Your task to perform on an android device: Toggle the flashlight Image 0: 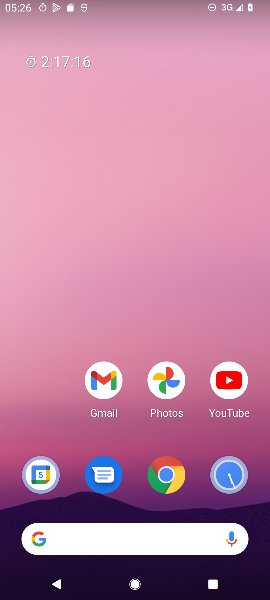
Step 0: drag from (132, 5) to (158, 369)
Your task to perform on an android device: Toggle the flashlight Image 1: 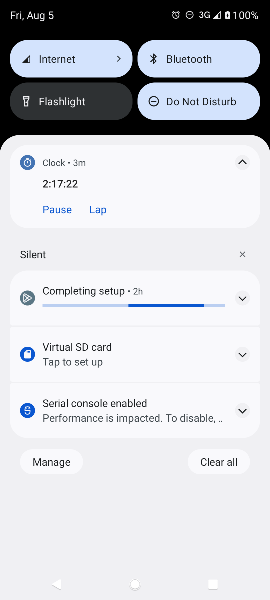
Step 1: drag from (137, 43) to (152, 297)
Your task to perform on an android device: Toggle the flashlight Image 2: 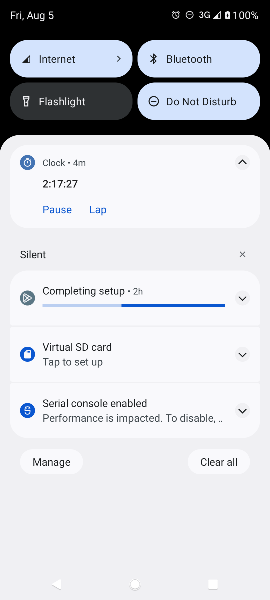
Step 2: drag from (134, 37) to (152, 371)
Your task to perform on an android device: Toggle the flashlight Image 3: 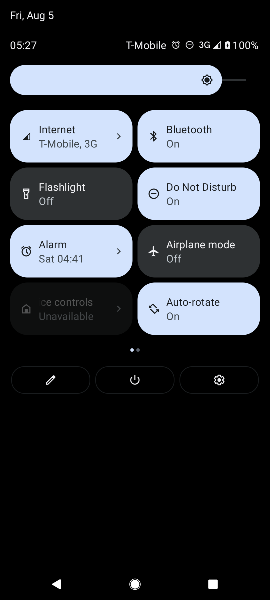
Step 3: click (62, 184)
Your task to perform on an android device: Toggle the flashlight Image 4: 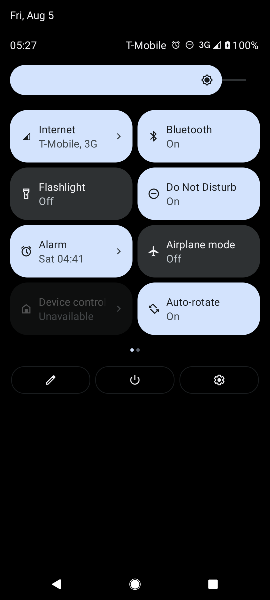
Step 4: task complete